Your task to perform on an android device: Open wifi settings Image 0: 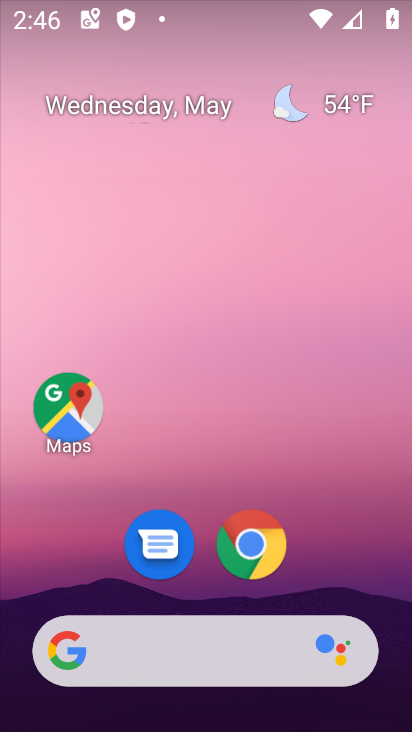
Step 0: drag from (371, 577) to (333, 56)
Your task to perform on an android device: Open wifi settings Image 1: 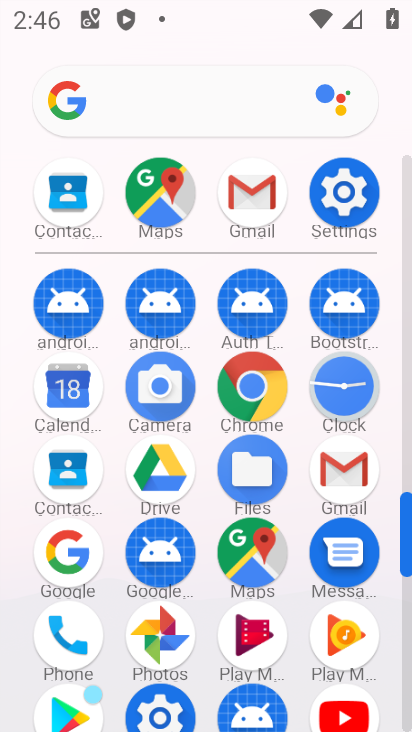
Step 1: click (342, 167)
Your task to perform on an android device: Open wifi settings Image 2: 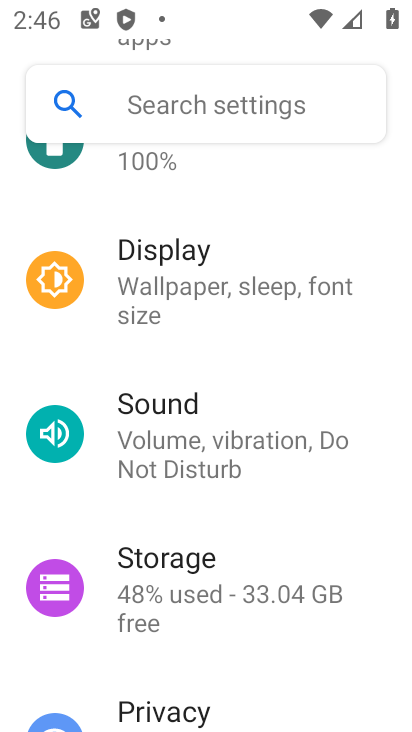
Step 2: drag from (242, 208) to (215, 681)
Your task to perform on an android device: Open wifi settings Image 3: 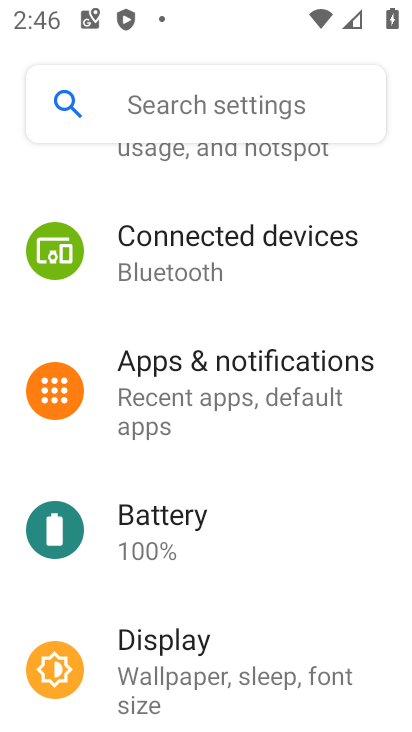
Step 3: drag from (203, 251) to (235, 702)
Your task to perform on an android device: Open wifi settings Image 4: 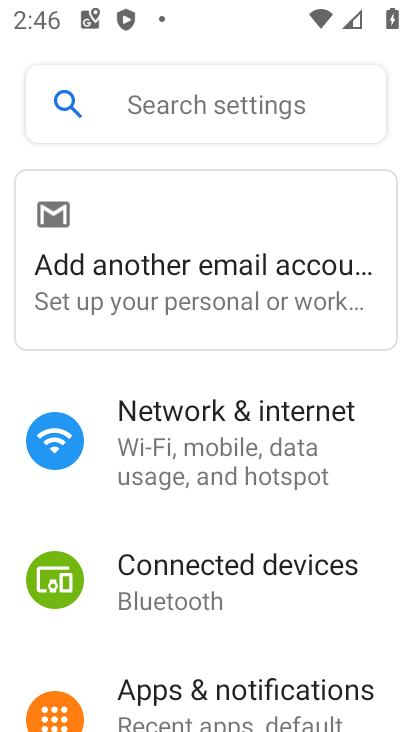
Step 4: click (249, 457)
Your task to perform on an android device: Open wifi settings Image 5: 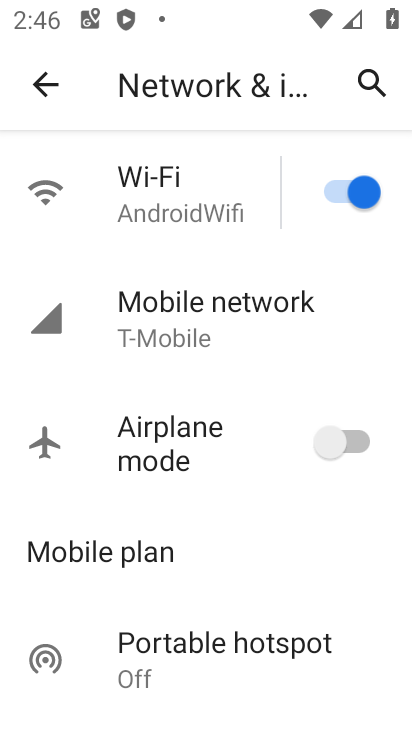
Step 5: task complete